Your task to perform on an android device: Search for pizza restaurants on Maps Image 0: 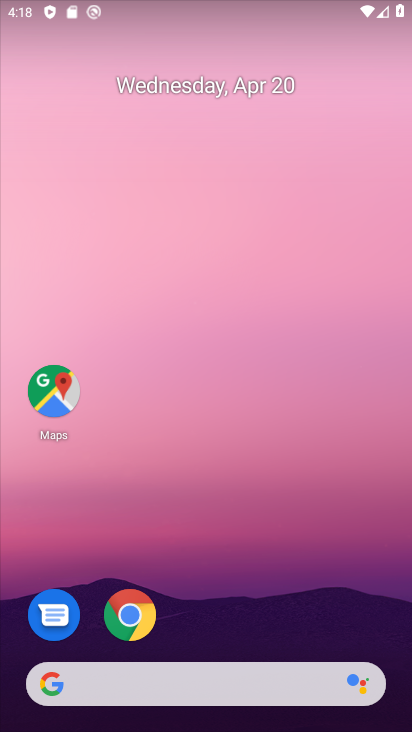
Step 0: click (62, 381)
Your task to perform on an android device: Search for pizza restaurants on Maps Image 1: 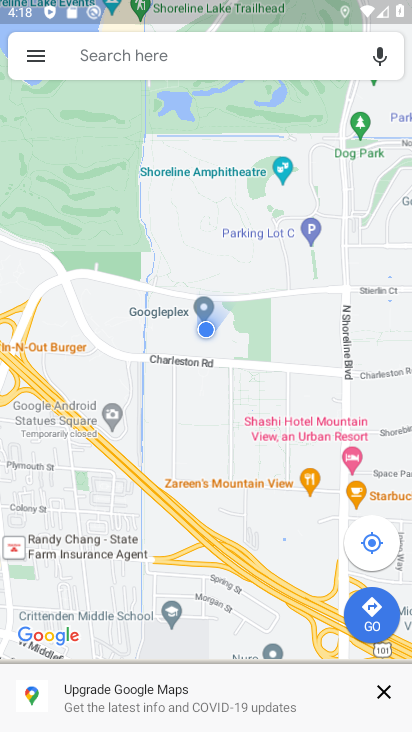
Step 1: click (139, 51)
Your task to perform on an android device: Search for pizza restaurants on Maps Image 2: 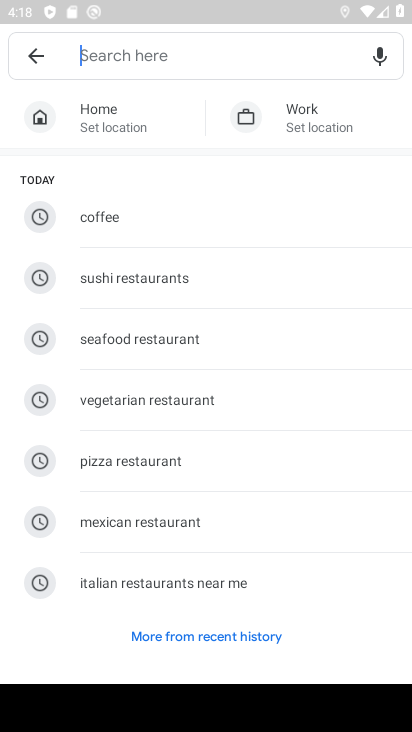
Step 2: type "pizza restaurants"
Your task to perform on an android device: Search for pizza restaurants on Maps Image 3: 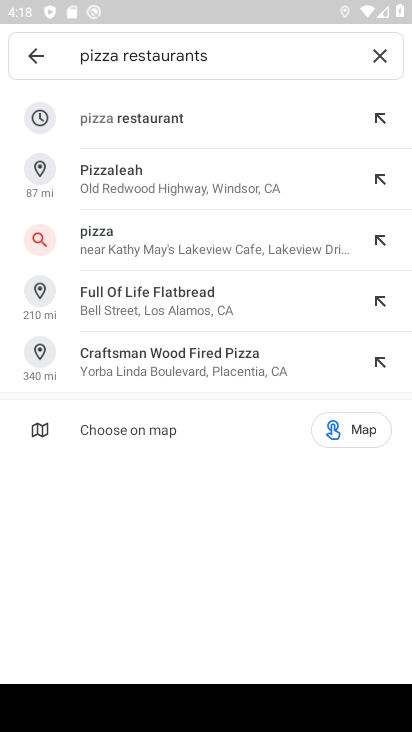
Step 3: click (156, 111)
Your task to perform on an android device: Search for pizza restaurants on Maps Image 4: 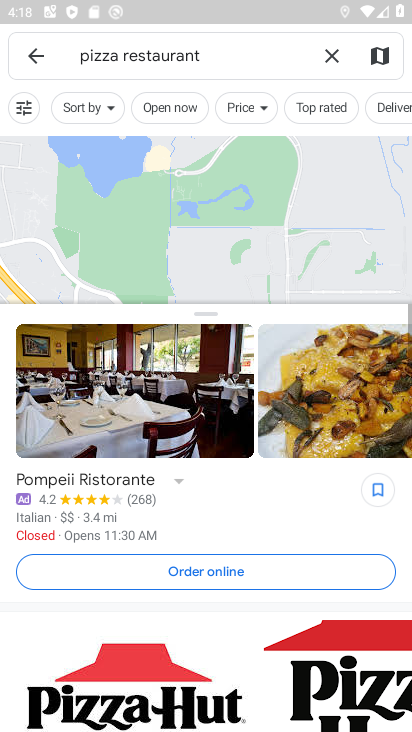
Step 4: task complete